Your task to perform on an android device: set an alarm Image 0: 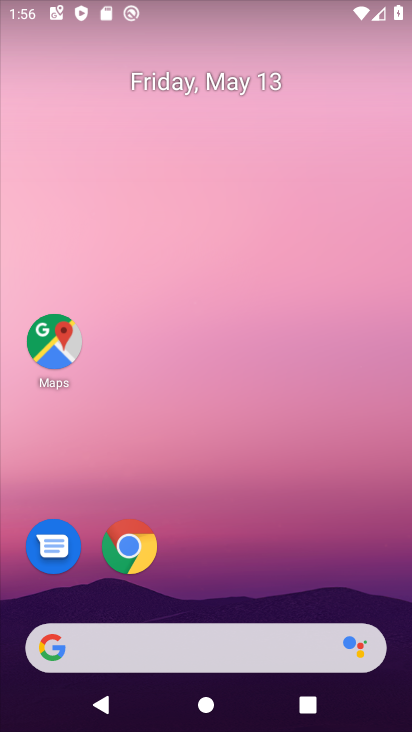
Step 0: drag from (275, 538) to (288, 93)
Your task to perform on an android device: set an alarm Image 1: 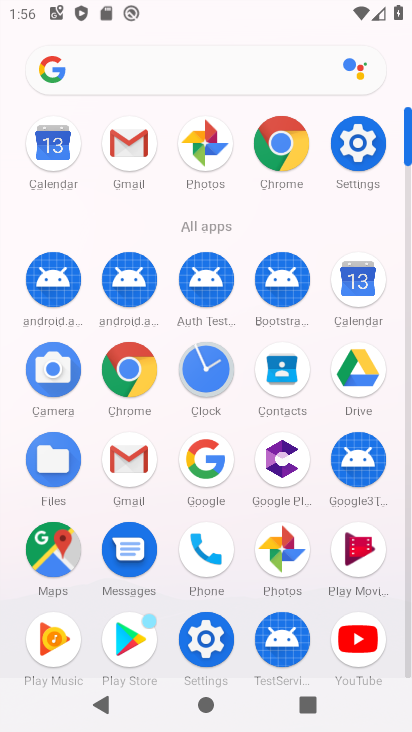
Step 1: click (217, 358)
Your task to perform on an android device: set an alarm Image 2: 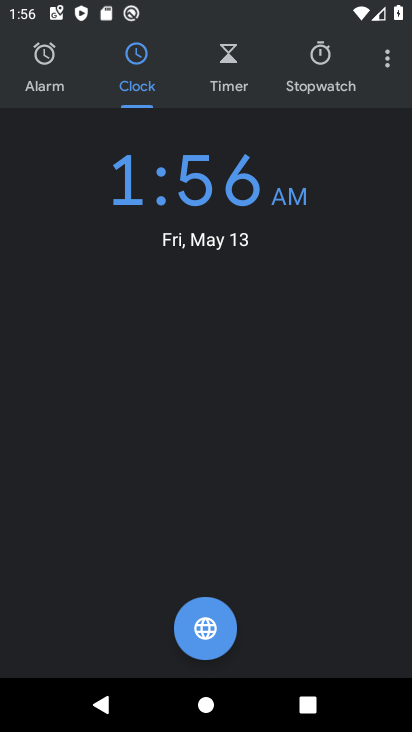
Step 2: click (54, 68)
Your task to perform on an android device: set an alarm Image 3: 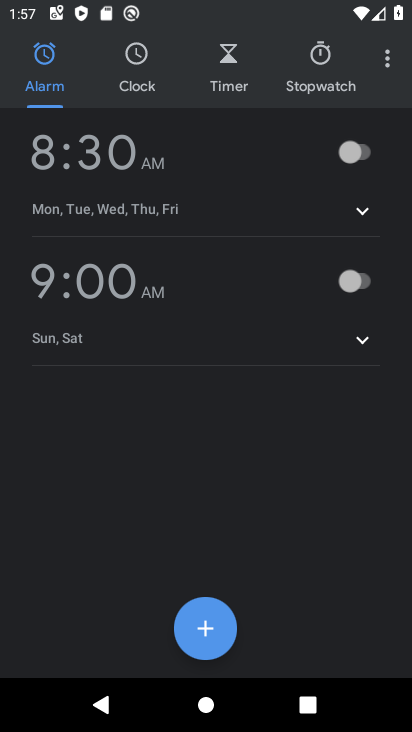
Step 3: click (211, 617)
Your task to perform on an android device: set an alarm Image 4: 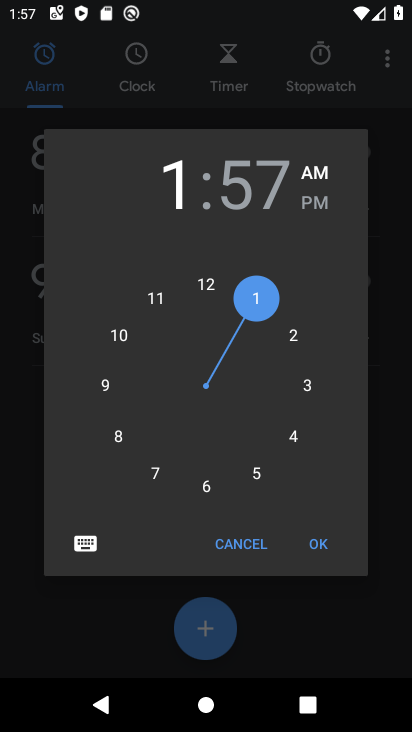
Step 4: click (222, 589)
Your task to perform on an android device: set an alarm Image 5: 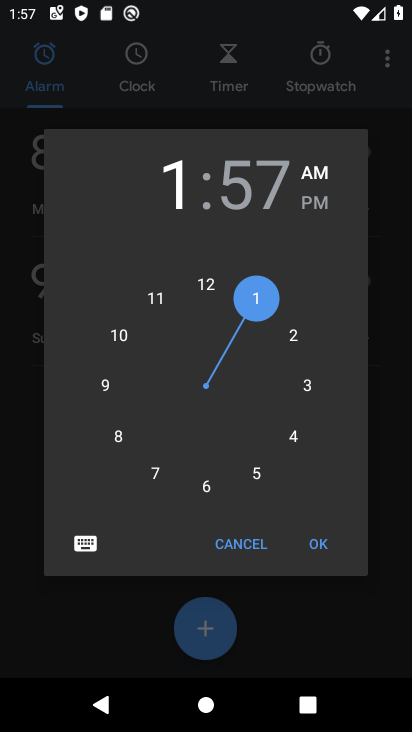
Step 5: click (323, 534)
Your task to perform on an android device: set an alarm Image 6: 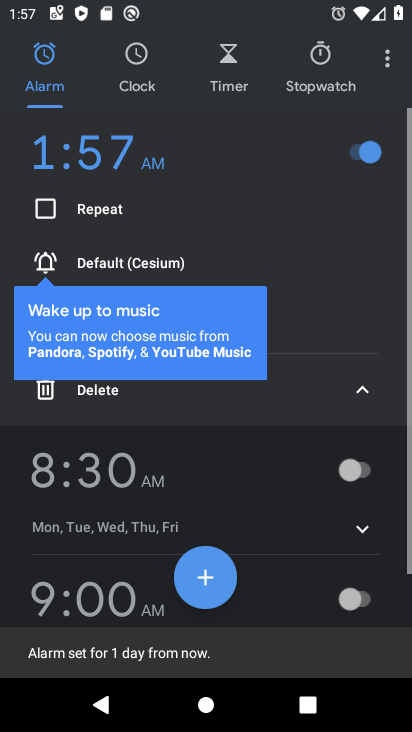
Step 6: task complete